Your task to perform on an android device: Empty the shopping cart on costco.com. Add bose quietcomfort 35 to the cart on costco.com, then select checkout. Image 0: 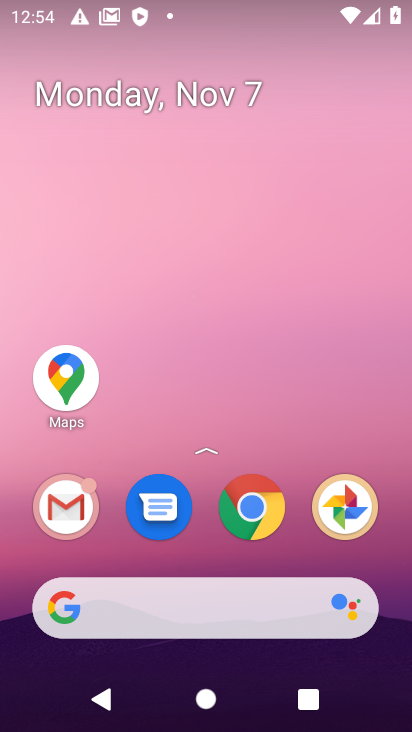
Step 0: drag from (129, 638) to (115, 122)
Your task to perform on an android device: Empty the shopping cart on costco.com. Add bose quietcomfort 35 to the cart on costco.com, then select checkout. Image 1: 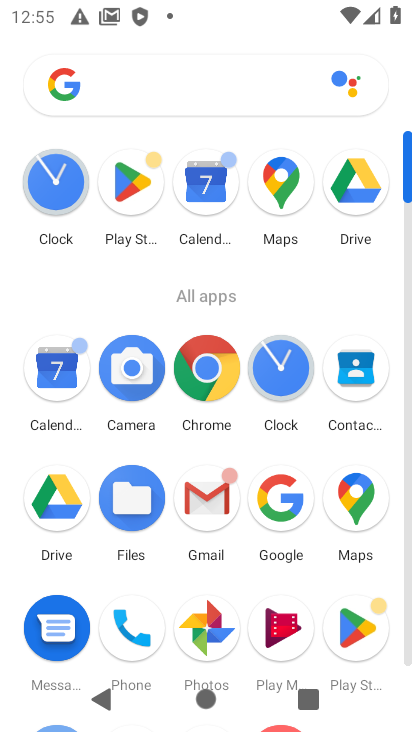
Step 1: click (207, 371)
Your task to perform on an android device: Empty the shopping cart on costco.com. Add bose quietcomfort 35 to the cart on costco.com, then select checkout. Image 2: 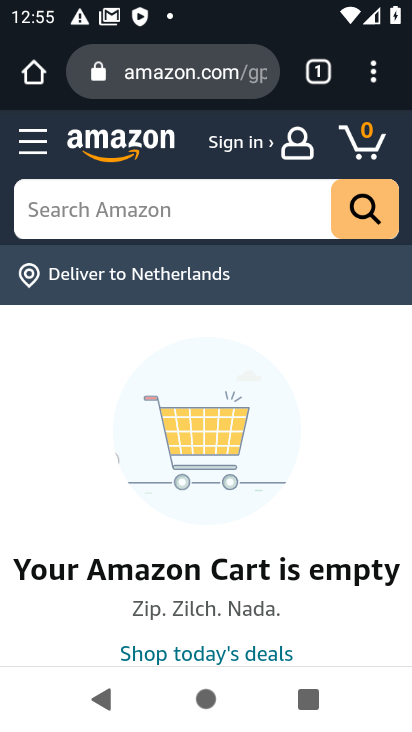
Step 2: click (249, 70)
Your task to perform on an android device: Empty the shopping cart on costco.com. Add bose quietcomfort 35 to the cart on costco.com, then select checkout. Image 3: 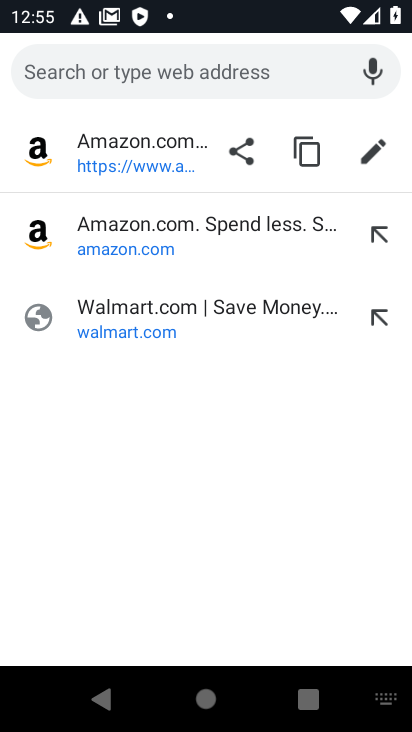
Step 3: type "costco.com"
Your task to perform on an android device: Empty the shopping cart on costco.com. Add bose quietcomfort 35 to the cart on costco.com, then select checkout. Image 4: 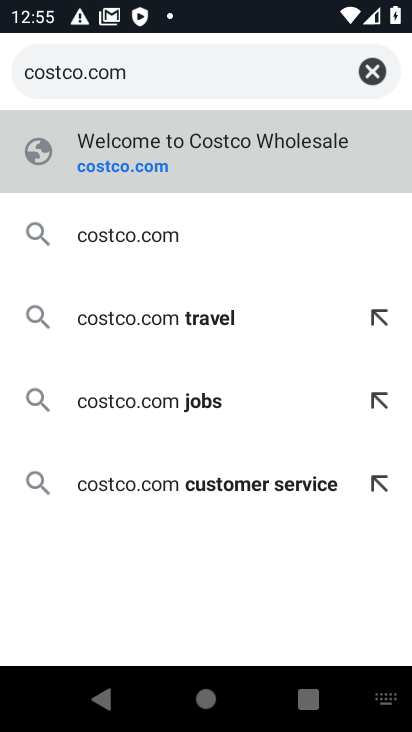
Step 4: press enter
Your task to perform on an android device: Empty the shopping cart on costco.com. Add bose quietcomfort 35 to the cart on costco.com, then select checkout. Image 5: 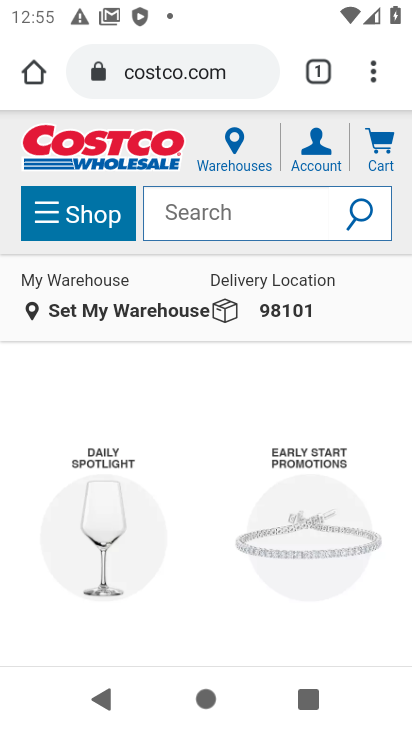
Step 5: click (184, 216)
Your task to perform on an android device: Empty the shopping cart on costco.com. Add bose quietcomfort 35 to the cart on costco.com, then select checkout. Image 6: 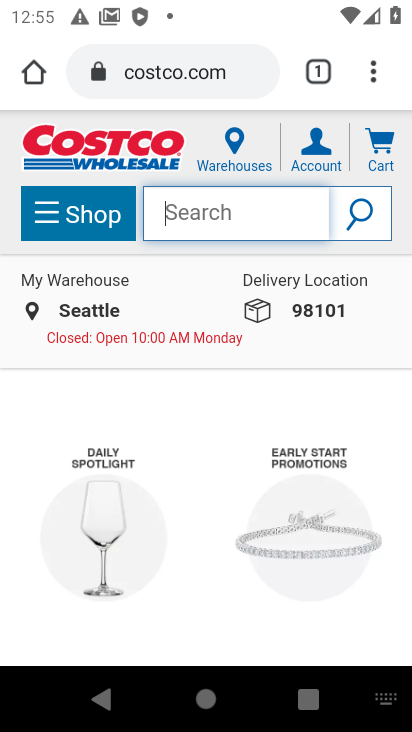
Step 6: press enter
Your task to perform on an android device: Empty the shopping cart on costco.com. Add bose quietcomfort 35 to the cart on costco.com, then select checkout. Image 7: 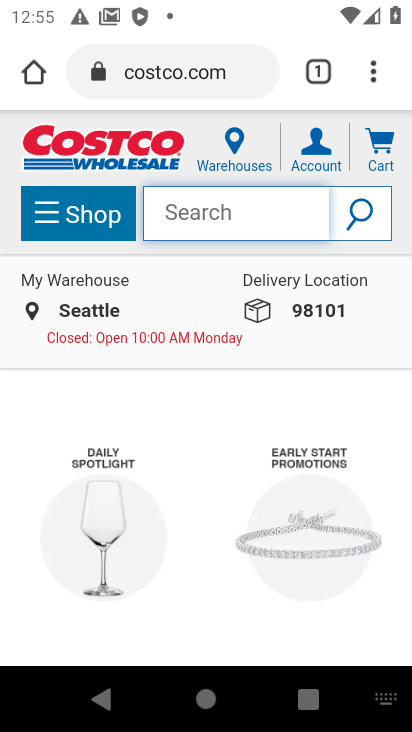
Step 7: type "bose quietcomfort 35"
Your task to perform on an android device: Empty the shopping cart on costco.com. Add bose quietcomfort 35 to the cart on costco.com, then select checkout. Image 8: 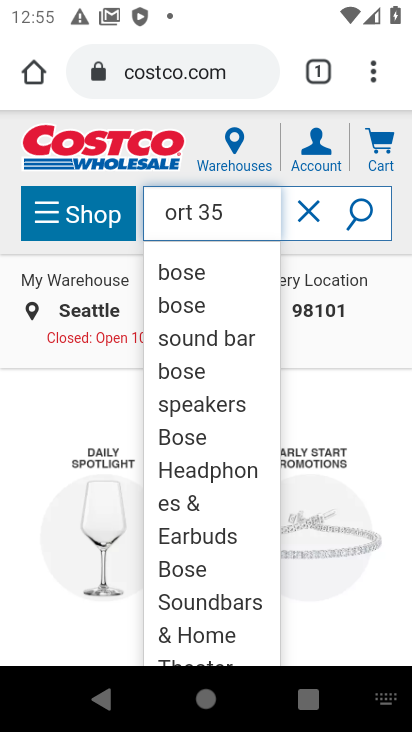
Step 8: press enter
Your task to perform on an android device: Empty the shopping cart on costco.com. Add bose quietcomfort 35 to the cart on costco.com, then select checkout. Image 9: 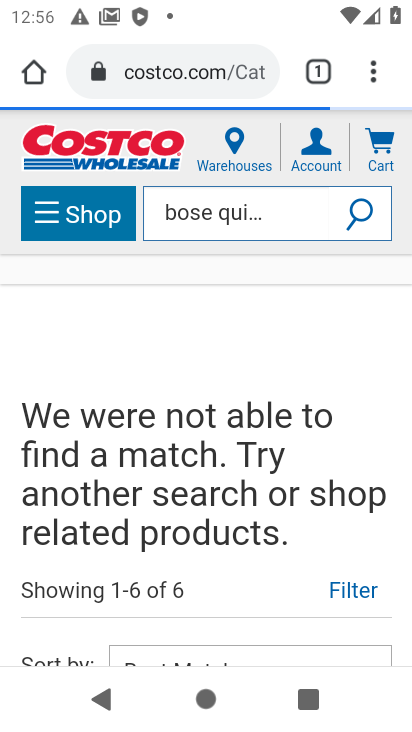
Step 9: drag from (197, 594) to (276, 233)
Your task to perform on an android device: Empty the shopping cart on costco.com. Add bose quietcomfort 35 to the cart on costco.com, then select checkout. Image 10: 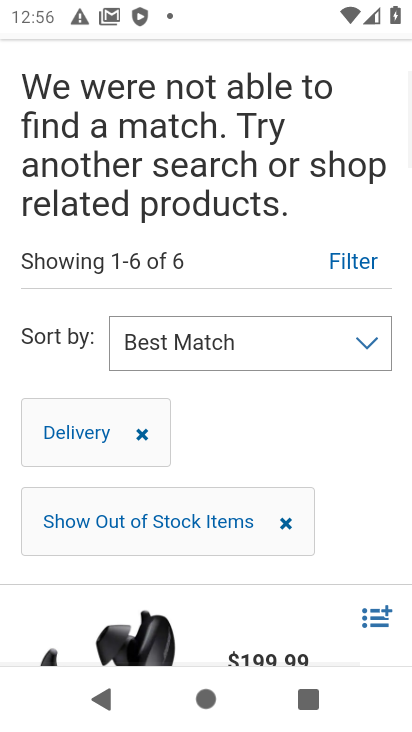
Step 10: drag from (188, 571) to (289, 165)
Your task to perform on an android device: Empty the shopping cart on costco.com. Add bose quietcomfort 35 to the cart on costco.com, then select checkout. Image 11: 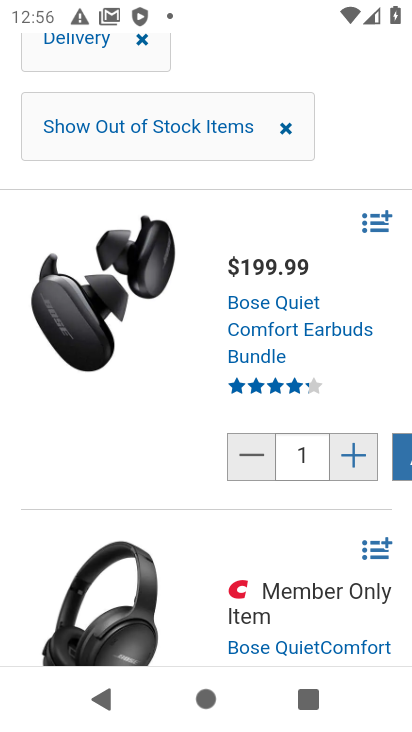
Step 11: drag from (348, 504) to (1, 546)
Your task to perform on an android device: Empty the shopping cart on costco.com. Add bose quietcomfort 35 to the cart on costco.com, then select checkout. Image 12: 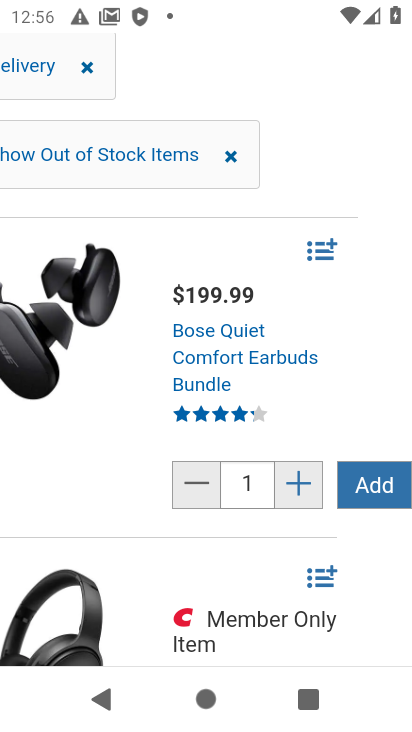
Step 12: click (387, 479)
Your task to perform on an android device: Empty the shopping cart on costco.com. Add bose quietcomfort 35 to the cart on costco.com, then select checkout. Image 13: 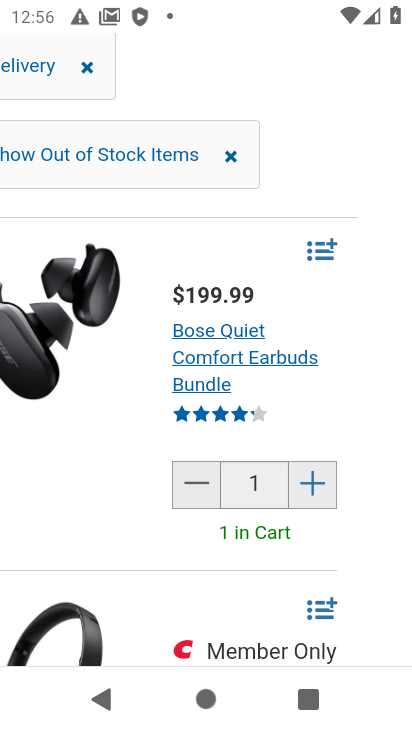
Step 13: drag from (310, 278) to (288, 549)
Your task to perform on an android device: Empty the shopping cart on costco.com. Add bose quietcomfort 35 to the cart on costco.com, then select checkout. Image 14: 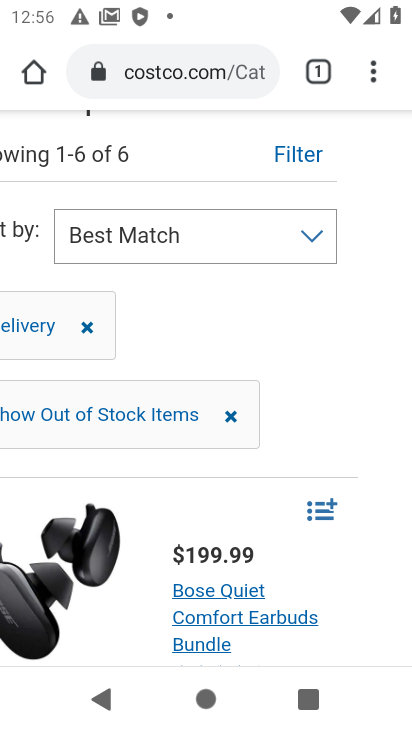
Step 14: drag from (331, 229) to (297, 577)
Your task to perform on an android device: Empty the shopping cart on costco.com. Add bose quietcomfort 35 to the cart on costco.com, then select checkout. Image 15: 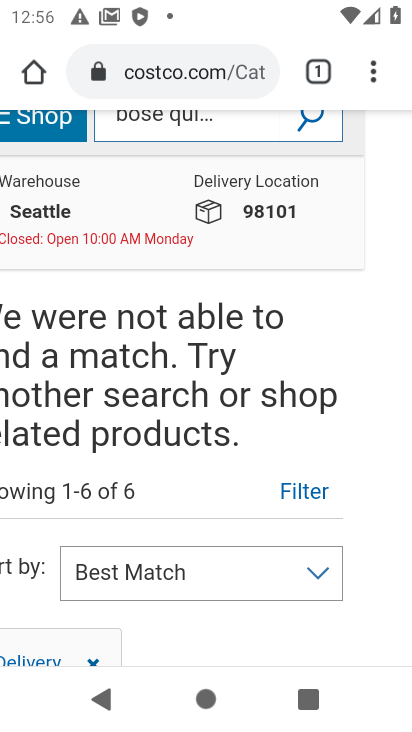
Step 15: drag from (100, 329) to (136, 614)
Your task to perform on an android device: Empty the shopping cart on costco.com. Add bose quietcomfort 35 to the cart on costco.com, then select checkout. Image 16: 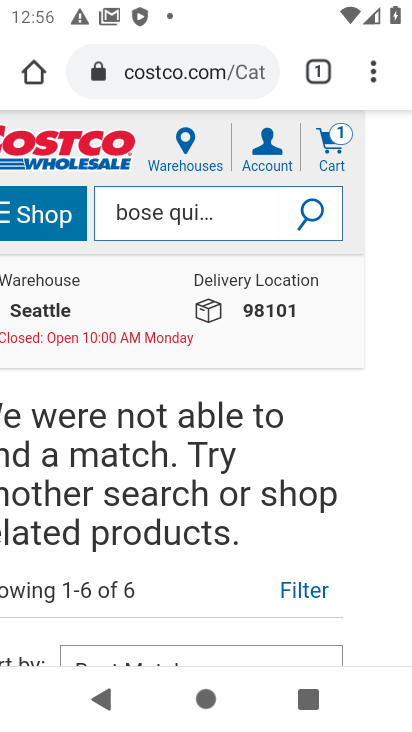
Step 16: click (332, 140)
Your task to perform on an android device: Empty the shopping cart on costco.com. Add bose quietcomfort 35 to the cart on costco.com, then select checkout. Image 17: 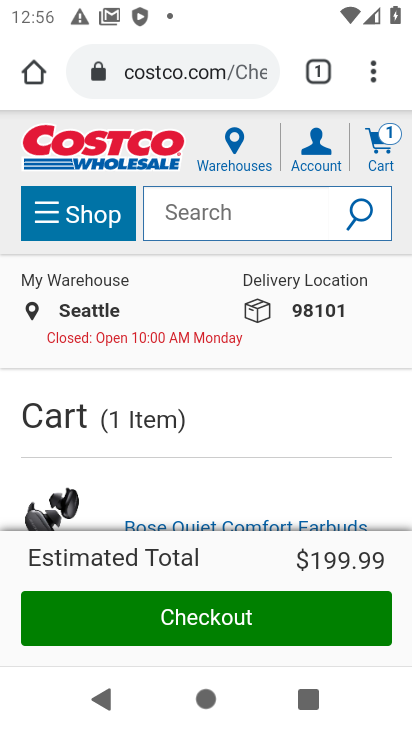
Step 17: click (223, 618)
Your task to perform on an android device: Empty the shopping cart on costco.com. Add bose quietcomfort 35 to the cart on costco.com, then select checkout. Image 18: 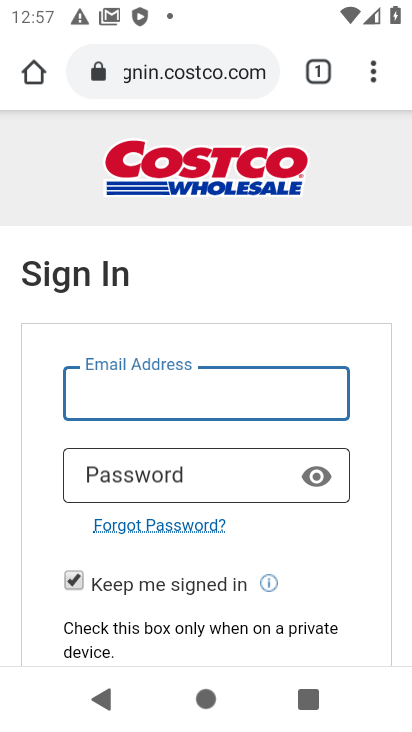
Step 18: task complete